Your task to perform on an android device: check android version Image 0: 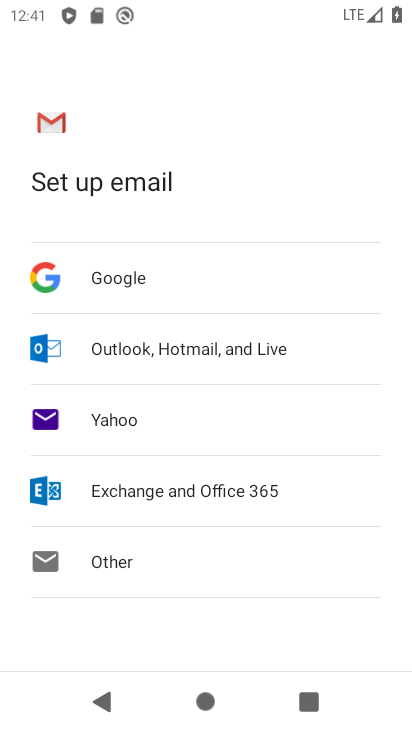
Step 0: press home button
Your task to perform on an android device: check android version Image 1: 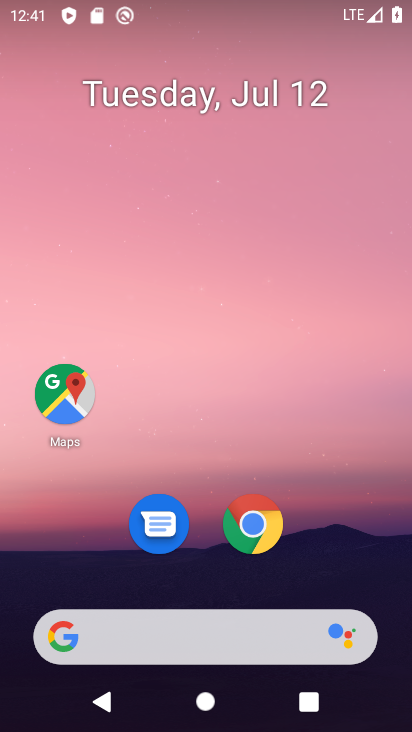
Step 1: drag from (325, 561) to (252, 40)
Your task to perform on an android device: check android version Image 2: 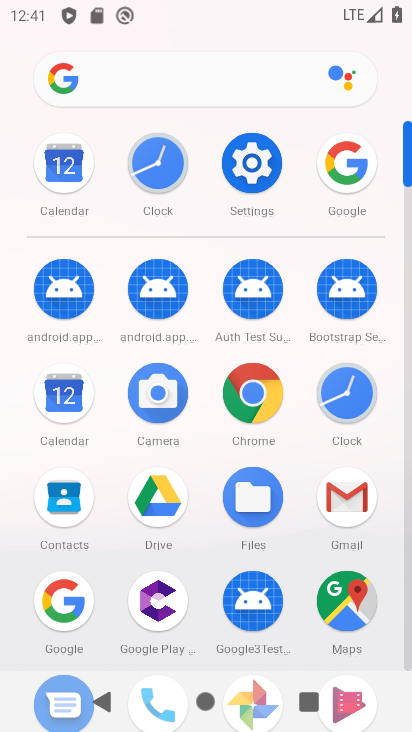
Step 2: click (258, 167)
Your task to perform on an android device: check android version Image 3: 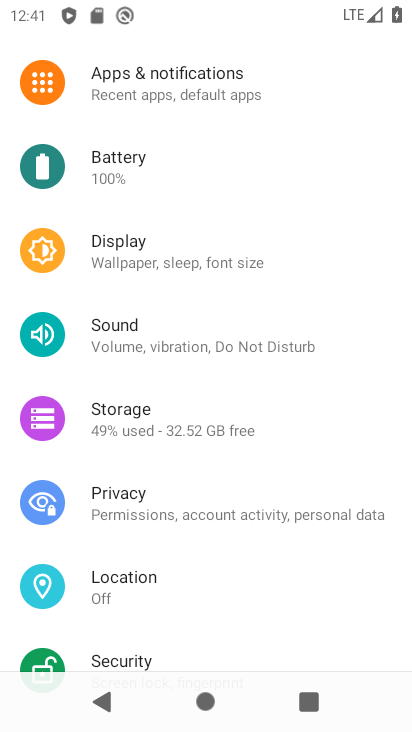
Step 3: drag from (262, 548) to (206, 59)
Your task to perform on an android device: check android version Image 4: 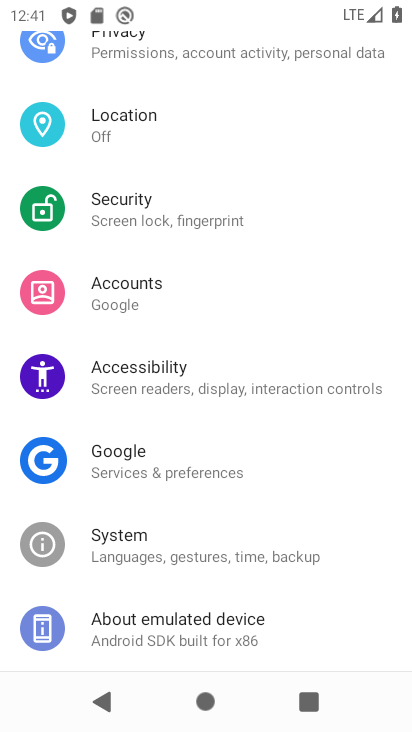
Step 4: click (212, 622)
Your task to perform on an android device: check android version Image 5: 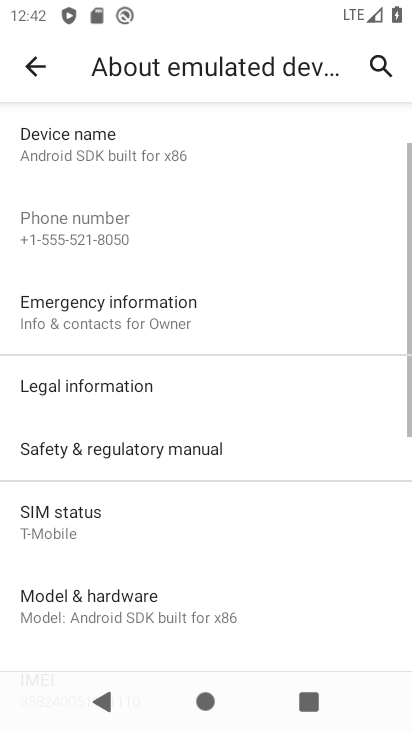
Step 5: drag from (209, 526) to (209, 164)
Your task to perform on an android device: check android version Image 6: 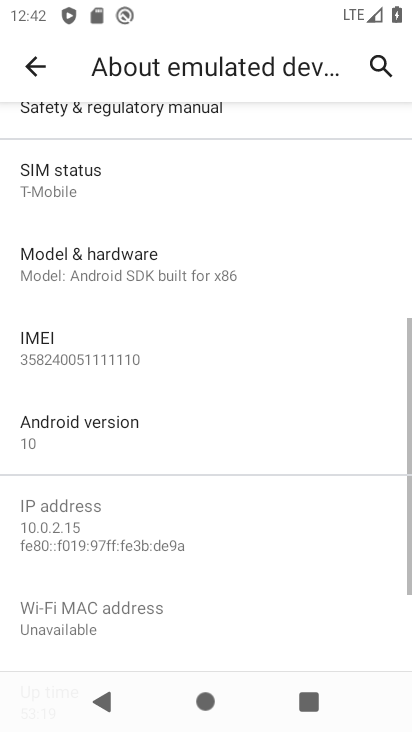
Step 6: click (140, 564)
Your task to perform on an android device: check android version Image 7: 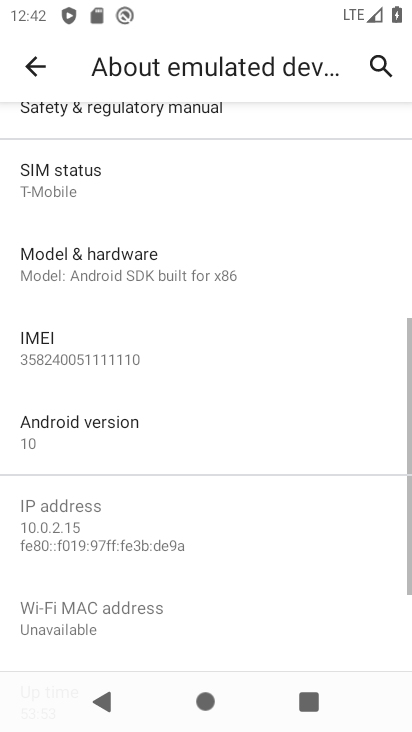
Step 7: click (118, 445)
Your task to perform on an android device: check android version Image 8: 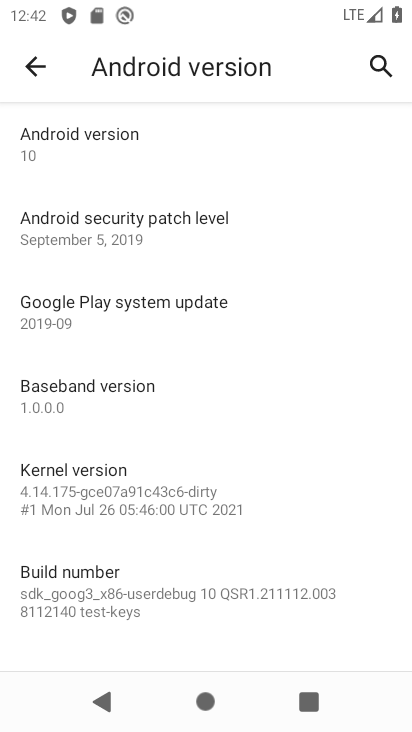
Step 8: task complete